Your task to perform on an android device: move a message to another label in the gmail app Image 0: 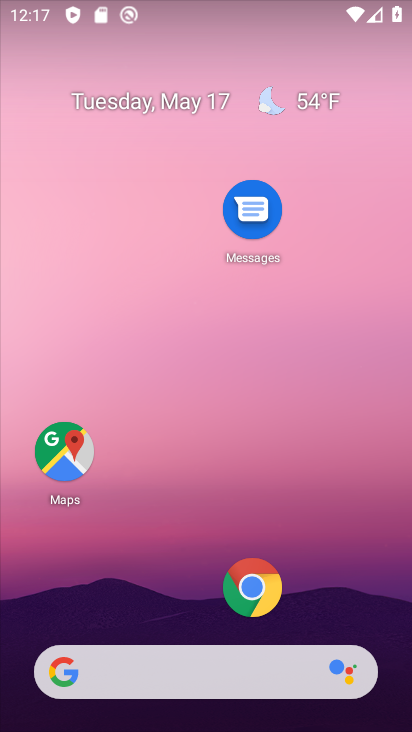
Step 0: drag from (178, 585) to (202, 62)
Your task to perform on an android device: move a message to another label in the gmail app Image 1: 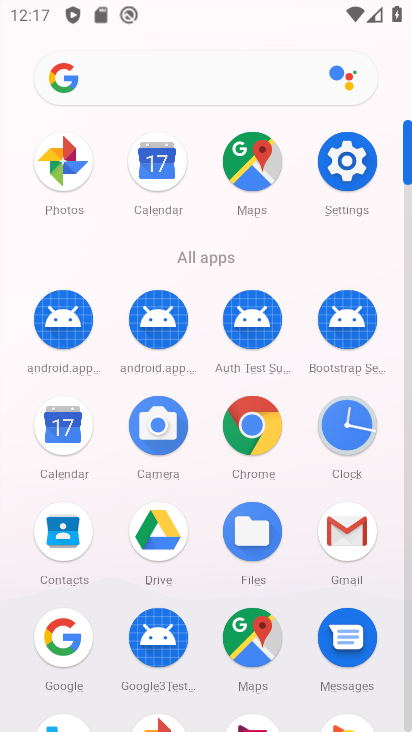
Step 1: click (363, 544)
Your task to perform on an android device: move a message to another label in the gmail app Image 2: 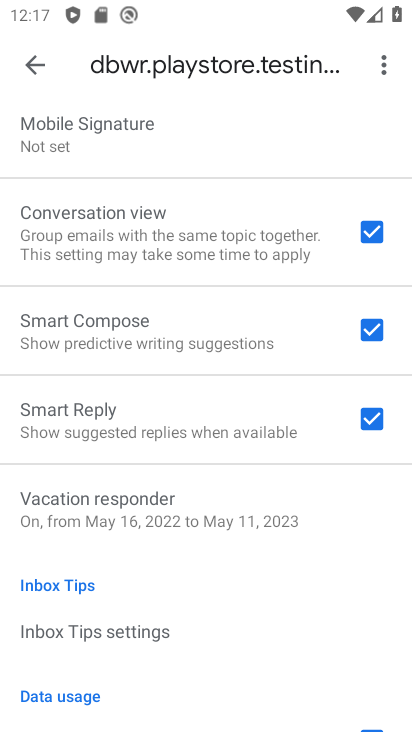
Step 2: click (25, 66)
Your task to perform on an android device: move a message to another label in the gmail app Image 3: 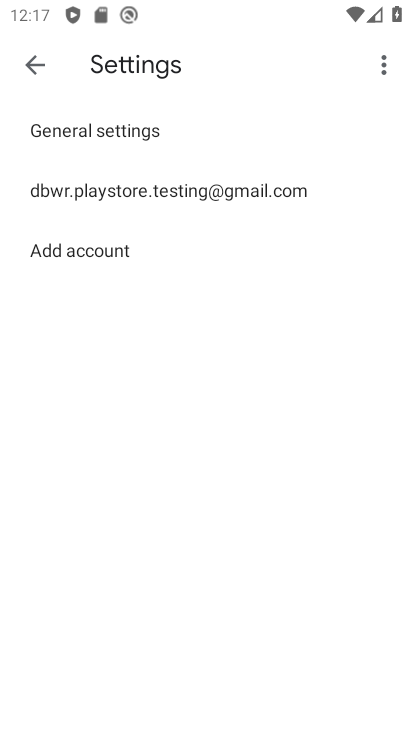
Step 3: click (29, 68)
Your task to perform on an android device: move a message to another label in the gmail app Image 4: 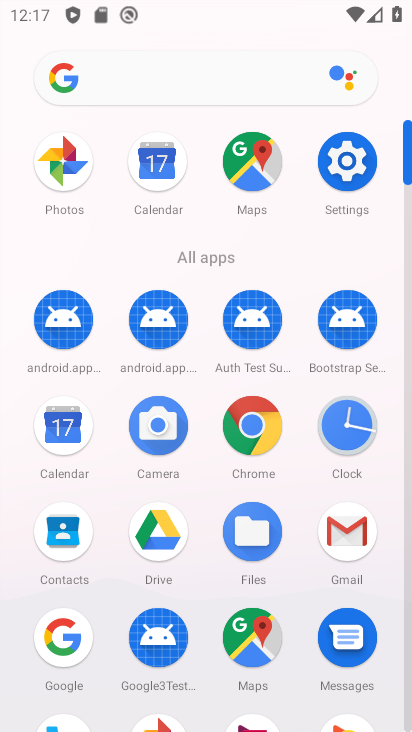
Step 4: click (357, 532)
Your task to perform on an android device: move a message to another label in the gmail app Image 5: 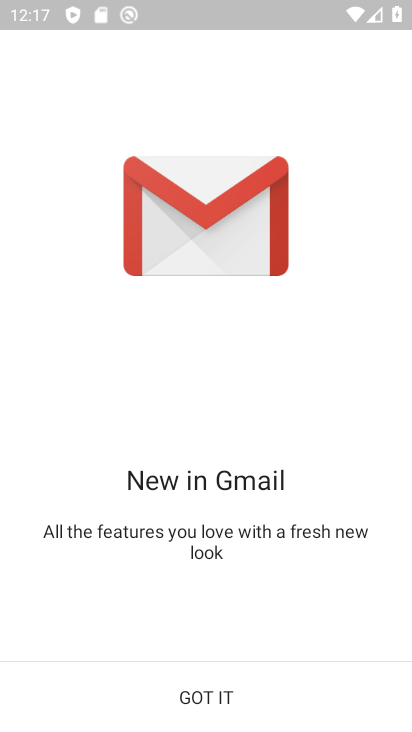
Step 5: click (235, 699)
Your task to perform on an android device: move a message to another label in the gmail app Image 6: 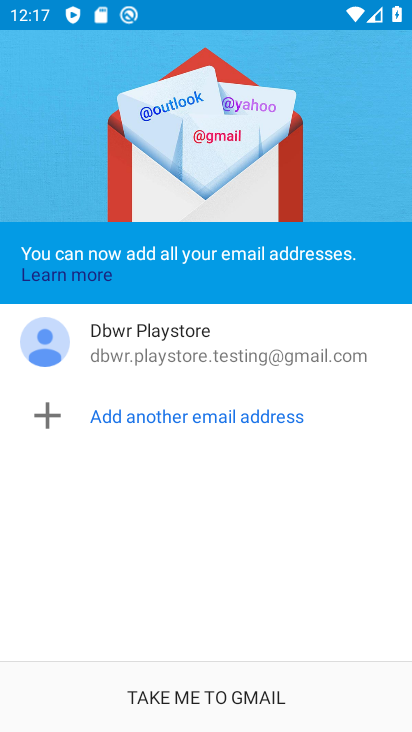
Step 6: click (208, 688)
Your task to perform on an android device: move a message to another label in the gmail app Image 7: 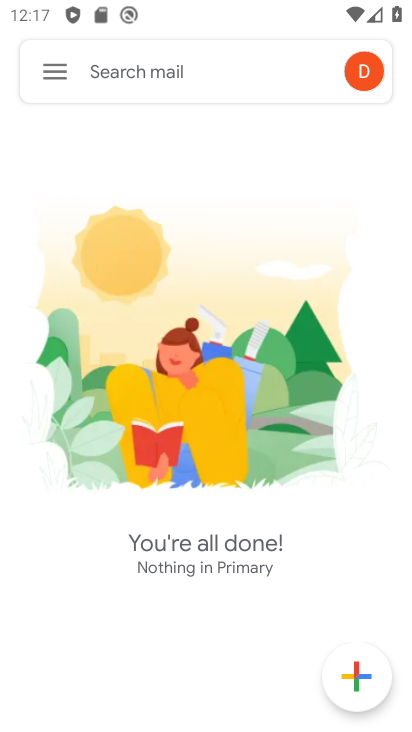
Step 7: click (53, 58)
Your task to perform on an android device: move a message to another label in the gmail app Image 8: 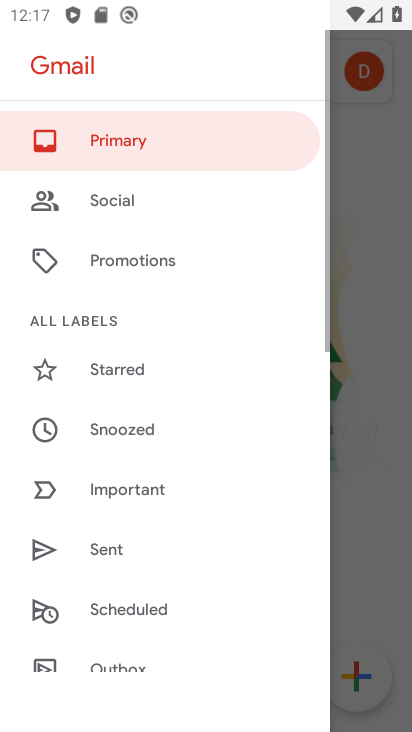
Step 8: drag from (162, 421) to (189, 314)
Your task to perform on an android device: move a message to another label in the gmail app Image 9: 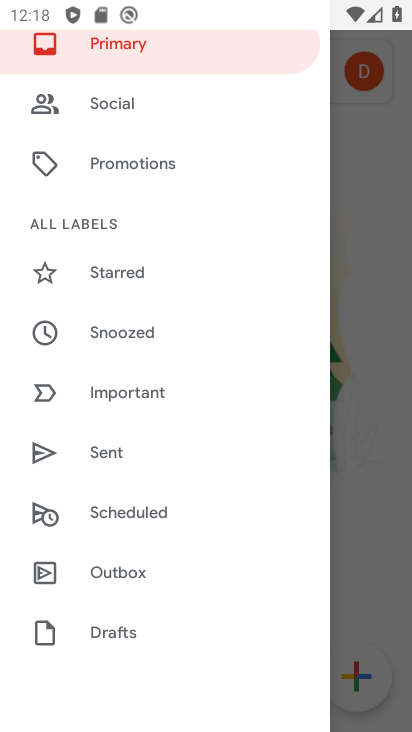
Step 9: drag from (156, 550) to (193, 367)
Your task to perform on an android device: move a message to another label in the gmail app Image 10: 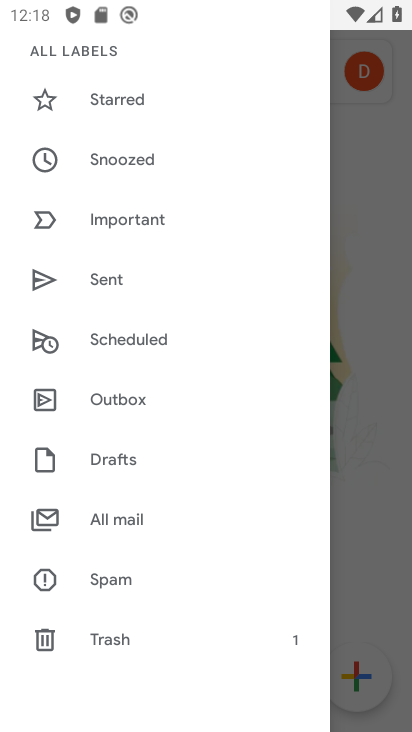
Step 10: click (144, 524)
Your task to perform on an android device: move a message to another label in the gmail app Image 11: 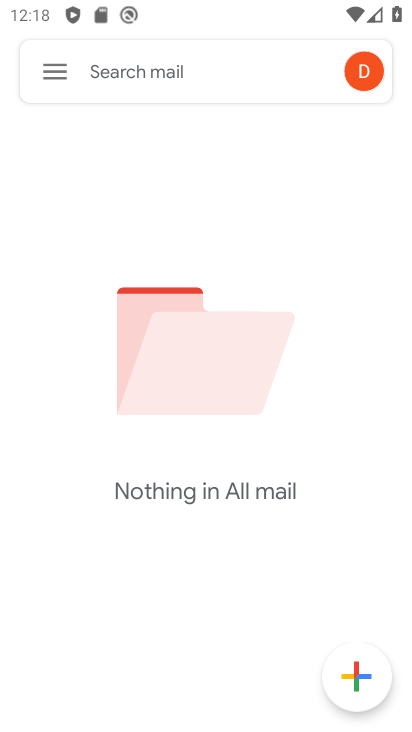
Step 11: click (71, 59)
Your task to perform on an android device: move a message to another label in the gmail app Image 12: 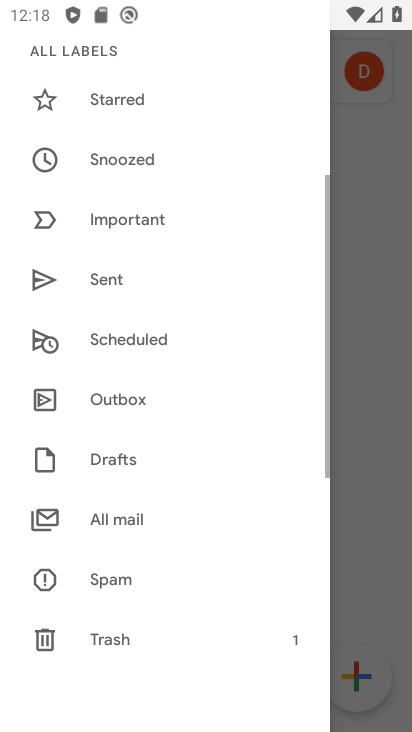
Step 12: click (159, 643)
Your task to perform on an android device: move a message to another label in the gmail app Image 13: 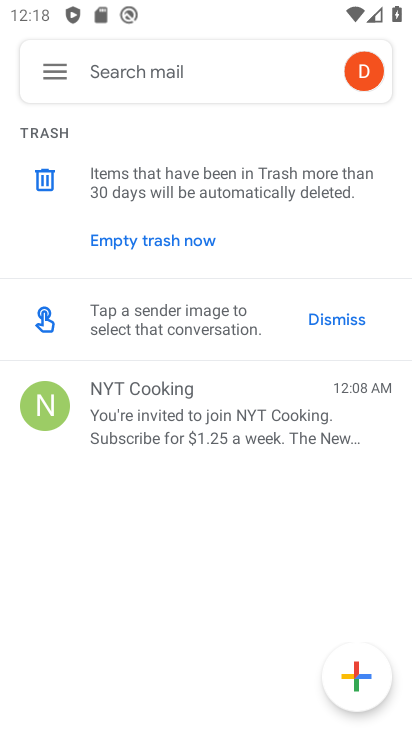
Step 13: click (66, 406)
Your task to perform on an android device: move a message to another label in the gmail app Image 14: 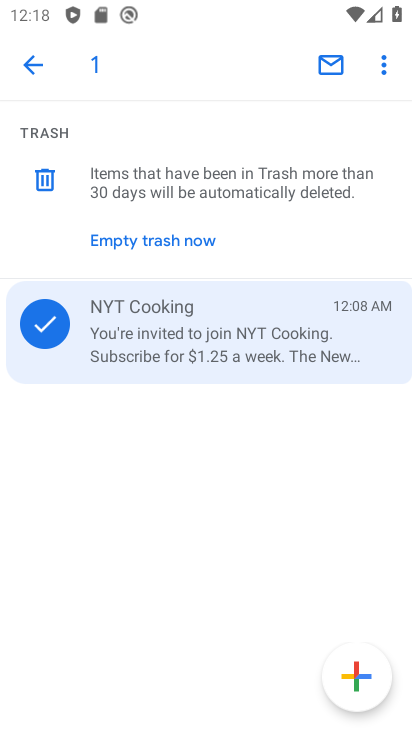
Step 14: click (382, 57)
Your task to perform on an android device: move a message to another label in the gmail app Image 15: 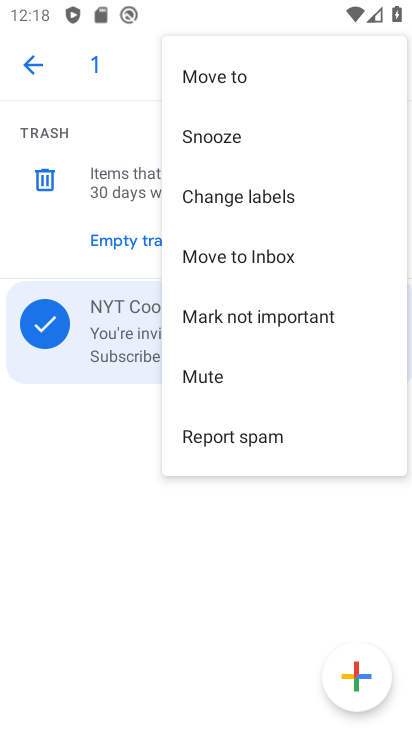
Step 15: click (243, 84)
Your task to perform on an android device: move a message to another label in the gmail app Image 16: 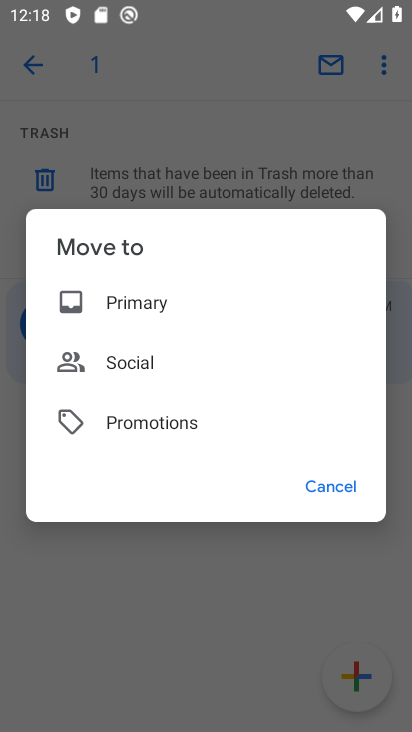
Step 16: click (150, 309)
Your task to perform on an android device: move a message to another label in the gmail app Image 17: 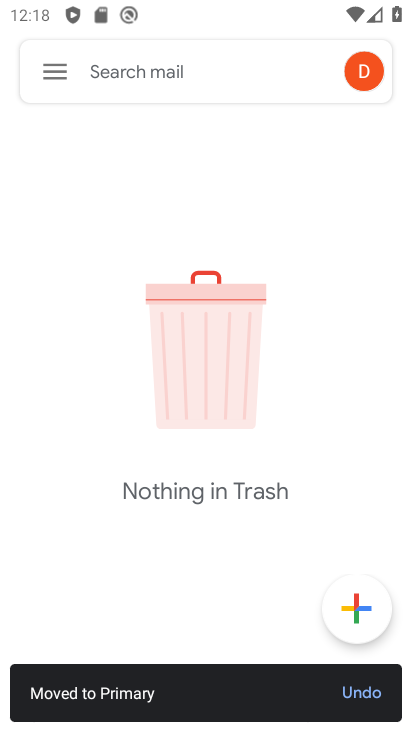
Step 17: task complete